Your task to perform on an android device: turn off notifications in google photos Image 0: 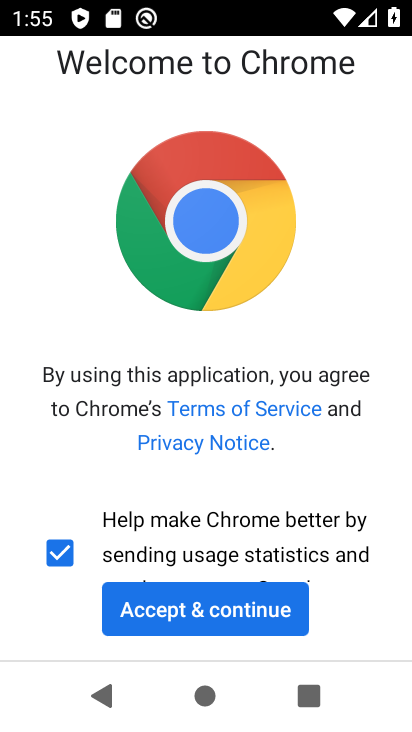
Step 0: press home button
Your task to perform on an android device: turn off notifications in google photos Image 1: 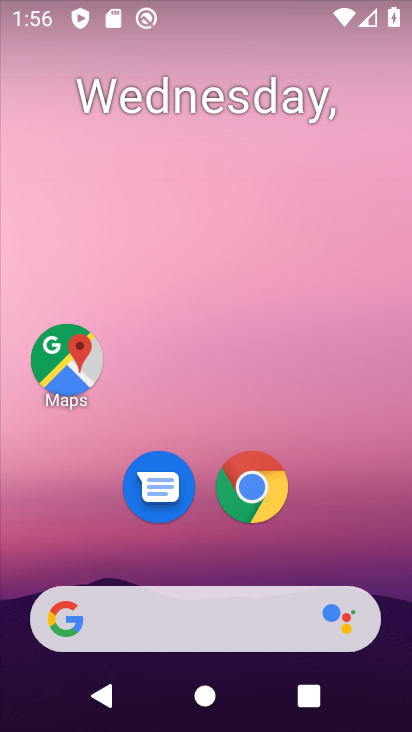
Step 1: drag from (206, 322) to (206, 70)
Your task to perform on an android device: turn off notifications in google photos Image 2: 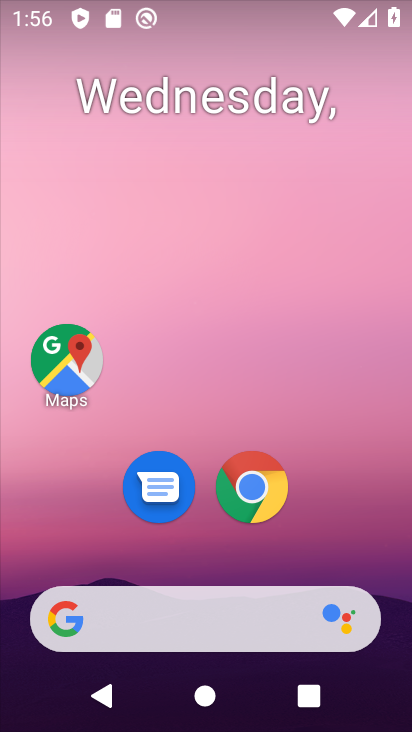
Step 2: drag from (184, 451) to (184, 174)
Your task to perform on an android device: turn off notifications in google photos Image 3: 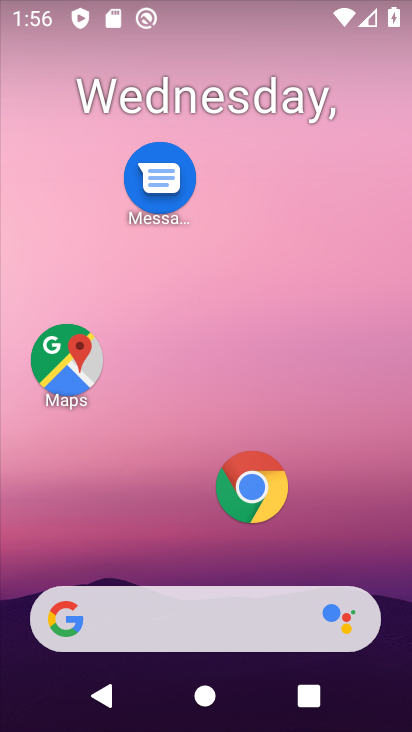
Step 3: drag from (201, 555) to (263, 88)
Your task to perform on an android device: turn off notifications in google photos Image 4: 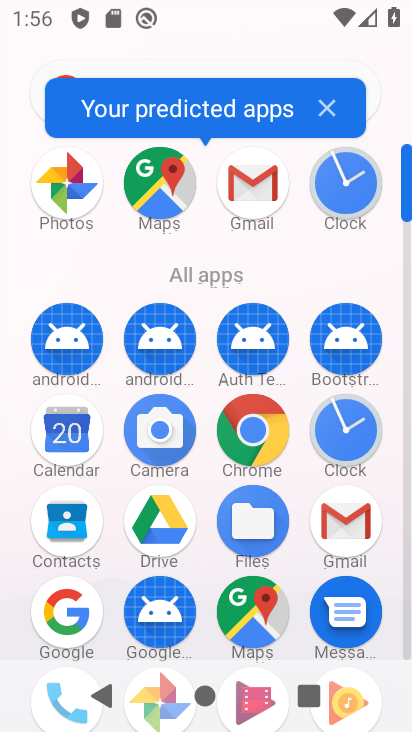
Step 4: click (69, 198)
Your task to perform on an android device: turn off notifications in google photos Image 5: 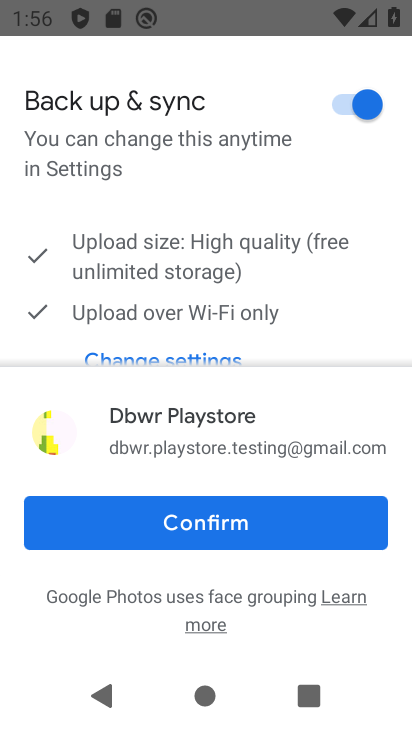
Step 5: click (294, 518)
Your task to perform on an android device: turn off notifications in google photos Image 6: 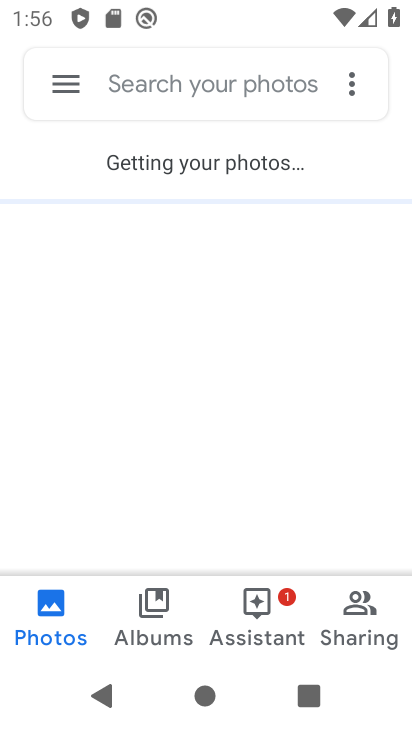
Step 6: click (65, 89)
Your task to perform on an android device: turn off notifications in google photos Image 7: 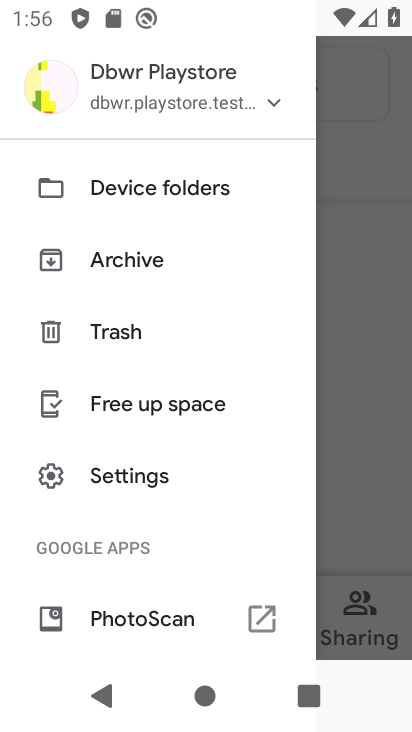
Step 7: click (107, 474)
Your task to perform on an android device: turn off notifications in google photos Image 8: 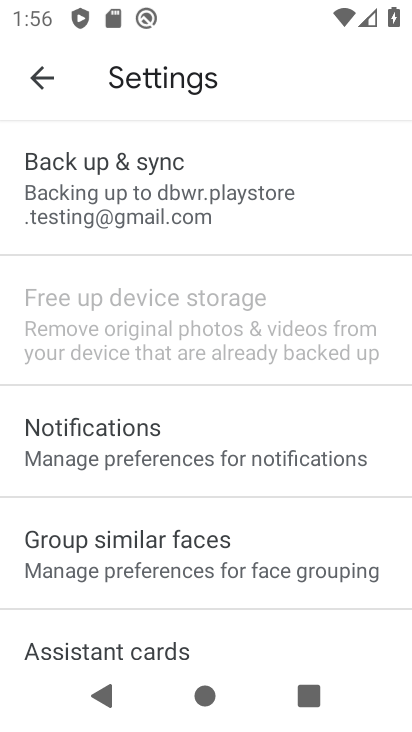
Step 8: click (131, 461)
Your task to perform on an android device: turn off notifications in google photos Image 9: 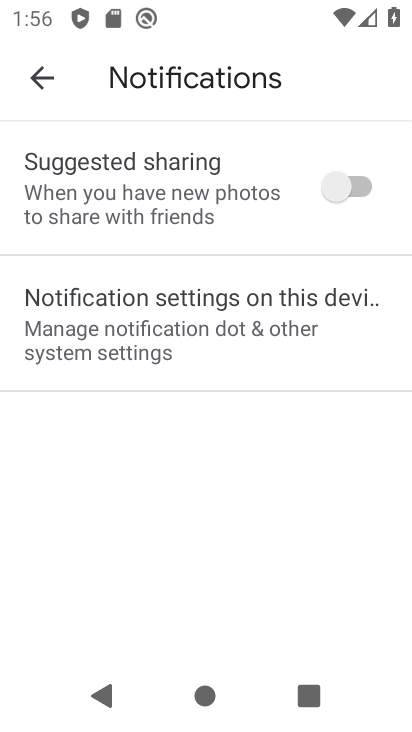
Step 9: click (161, 357)
Your task to perform on an android device: turn off notifications in google photos Image 10: 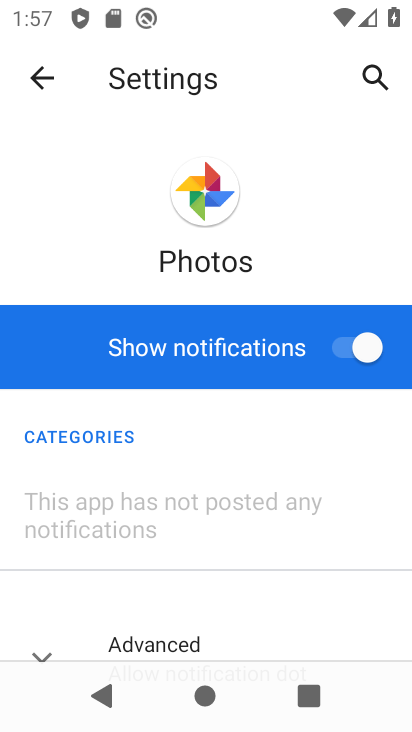
Step 10: click (337, 352)
Your task to perform on an android device: turn off notifications in google photos Image 11: 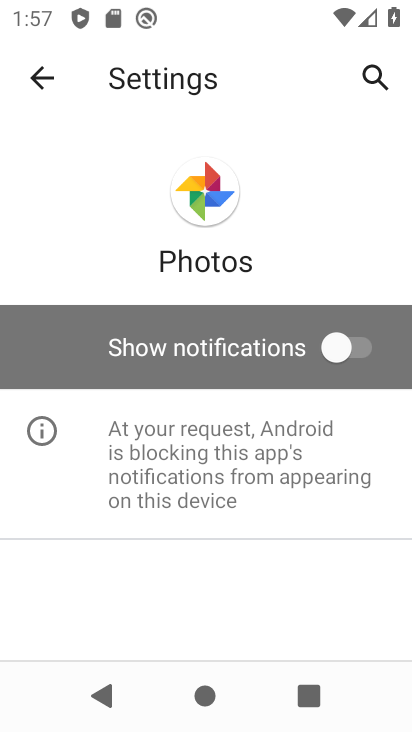
Step 11: task complete